Your task to perform on an android device: Open the Play Movies app and select the watchlist tab. Image 0: 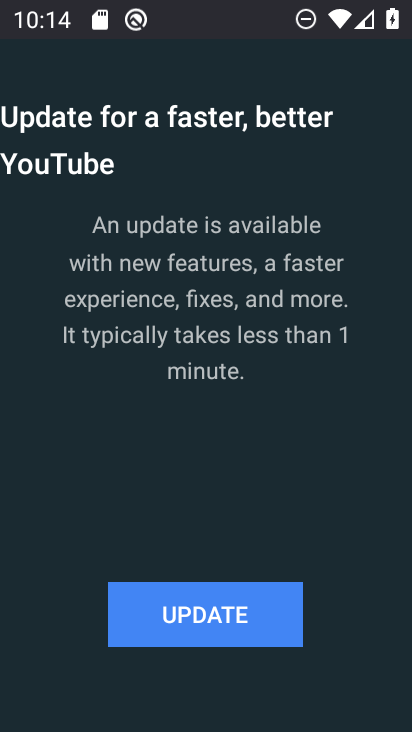
Step 0: press home button
Your task to perform on an android device: Open the Play Movies app and select the watchlist tab. Image 1: 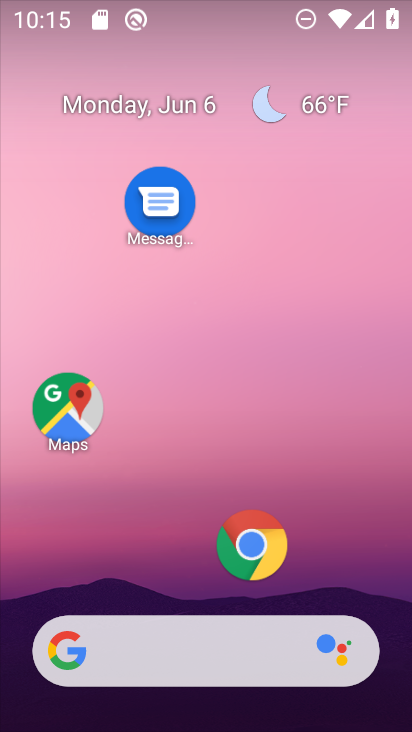
Step 1: drag from (156, 591) to (409, 78)
Your task to perform on an android device: Open the Play Movies app and select the watchlist tab. Image 2: 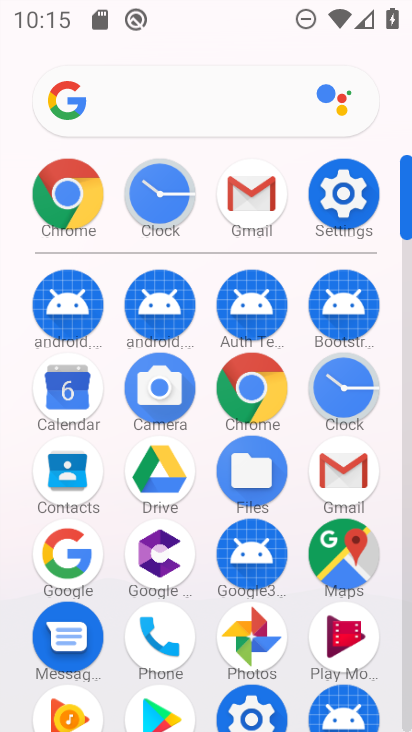
Step 2: click (343, 628)
Your task to perform on an android device: Open the Play Movies app and select the watchlist tab. Image 3: 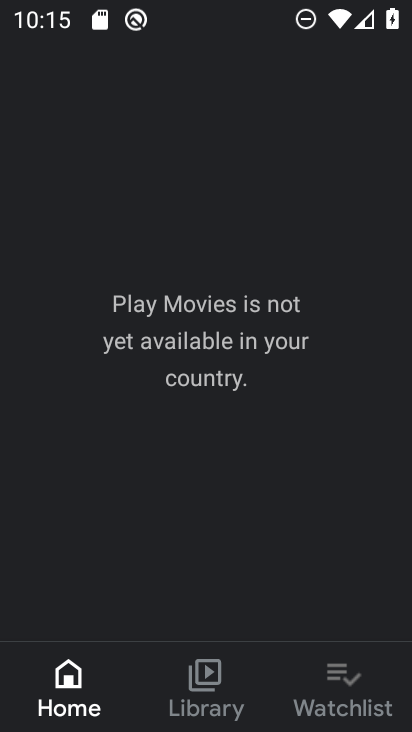
Step 3: click (324, 685)
Your task to perform on an android device: Open the Play Movies app and select the watchlist tab. Image 4: 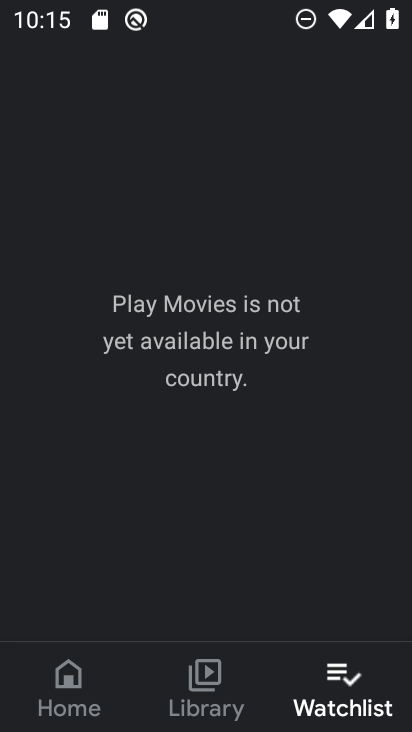
Step 4: task complete